Your task to perform on an android device: turn off translation in the chrome app Image 0: 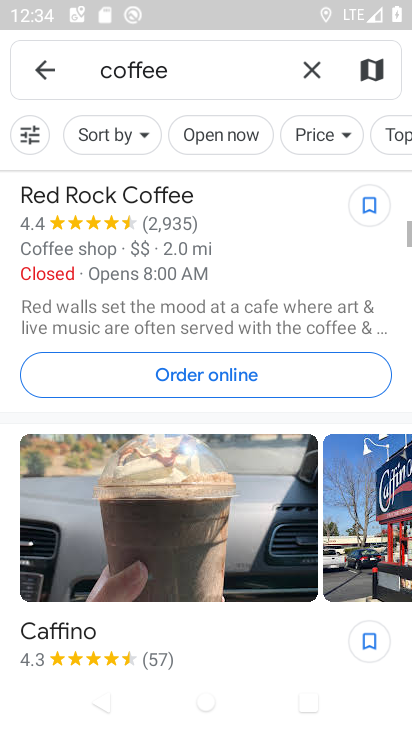
Step 0: press home button
Your task to perform on an android device: turn off translation in the chrome app Image 1: 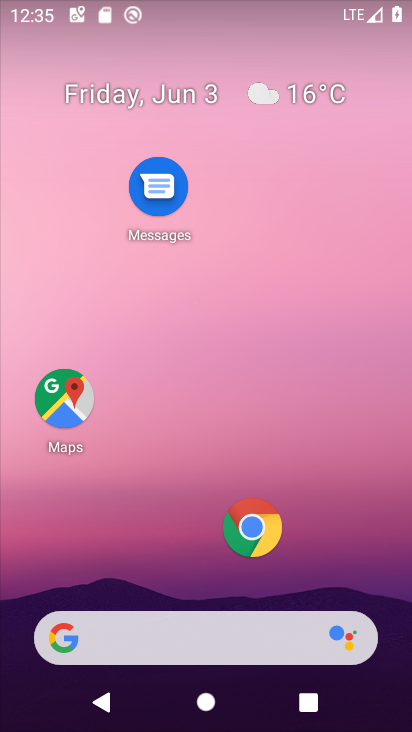
Step 1: drag from (202, 581) to (241, 1)
Your task to perform on an android device: turn off translation in the chrome app Image 2: 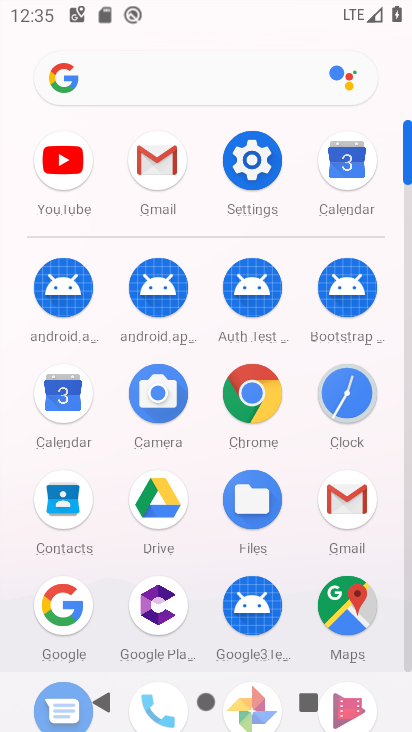
Step 2: click (248, 388)
Your task to perform on an android device: turn off translation in the chrome app Image 3: 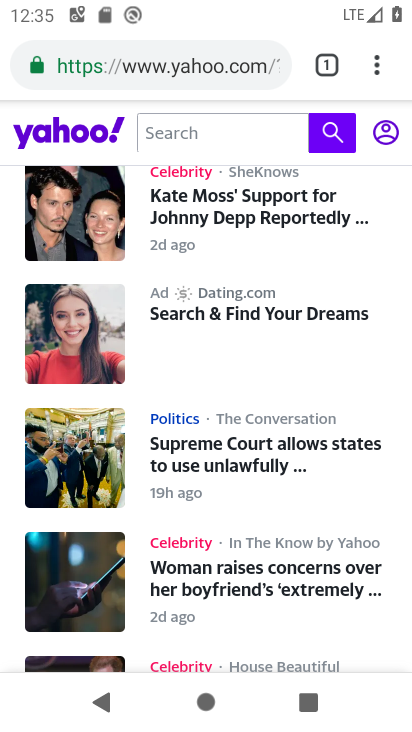
Step 3: click (376, 59)
Your task to perform on an android device: turn off translation in the chrome app Image 4: 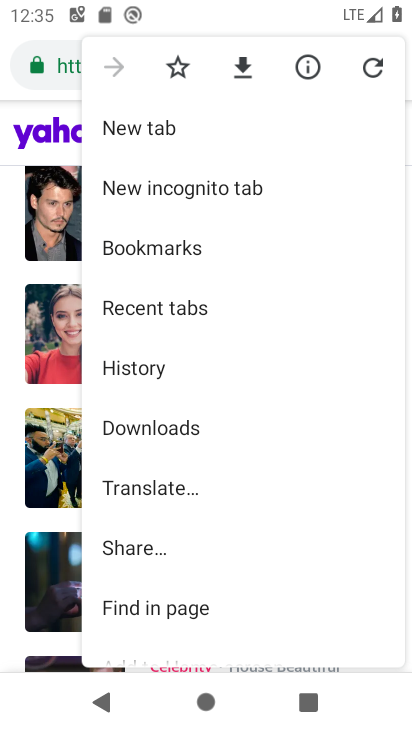
Step 4: drag from (240, 603) to (290, 93)
Your task to perform on an android device: turn off translation in the chrome app Image 5: 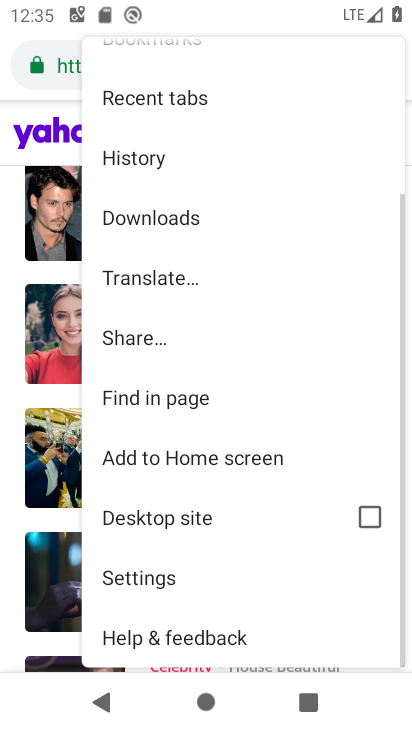
Step 5: click (184, 572)
Your task to perform on an android device: turn off translation in the chrome app Image 6: 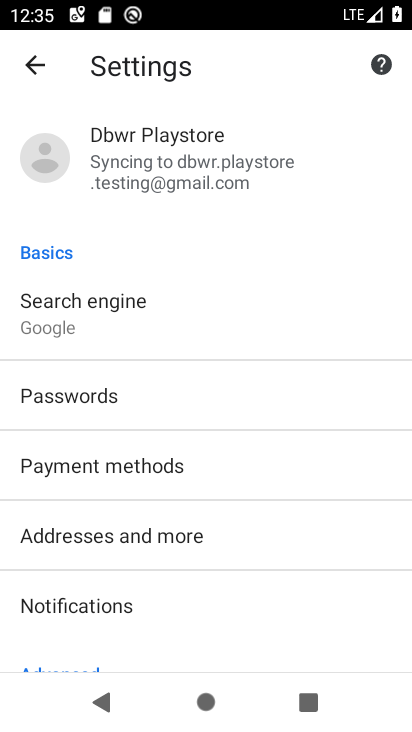
Step 6: drag from (219, 610) to (240, 154)
Your task to perform on an android device: turn off translation in the chrome app Image 7: 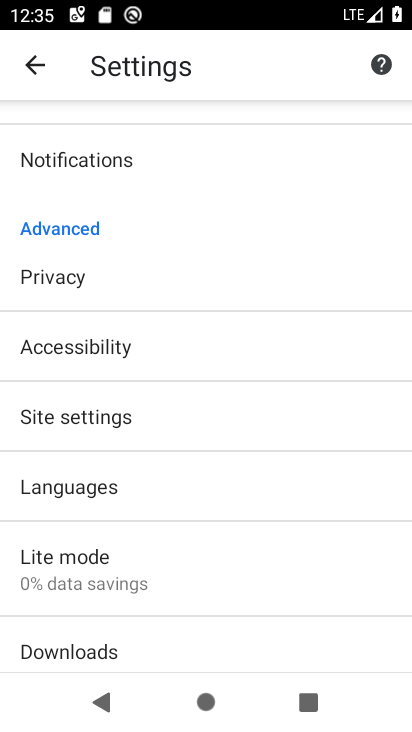
Step 7: click (144, 488)
Your task to perform on an android device: turn off translation in the chrome app Image 8: 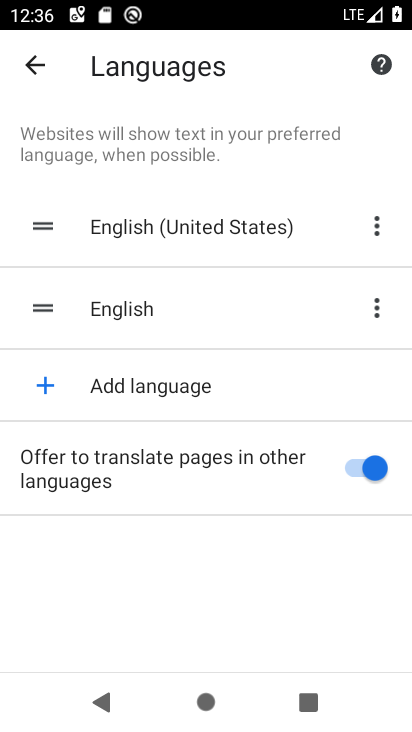
Step 8: click (347, 468)
Your task to perform on an android device: turn off translation in the chrome app Image 9: 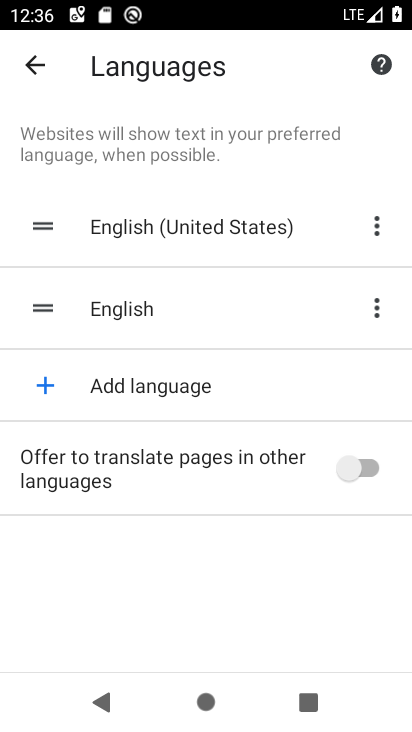
Step 9: task complete